Your task to perform on an android device: toggle notifications settings in the gmail app Image 0: 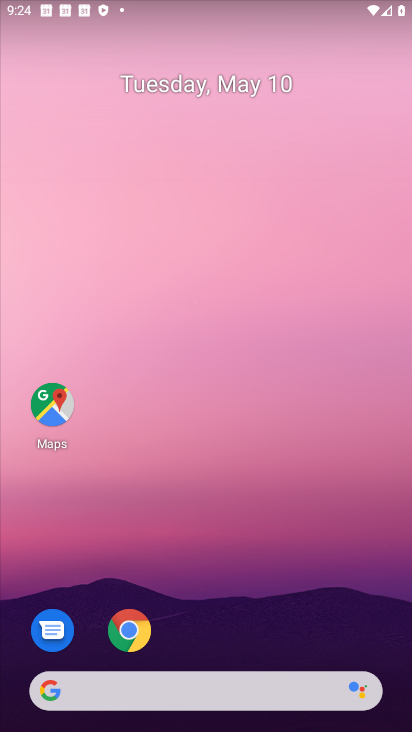
Step 0: drag from (188, 719) to (145, 13)
Your task to perform on an android device: toggle notifications settings in the gmail app Image 1: 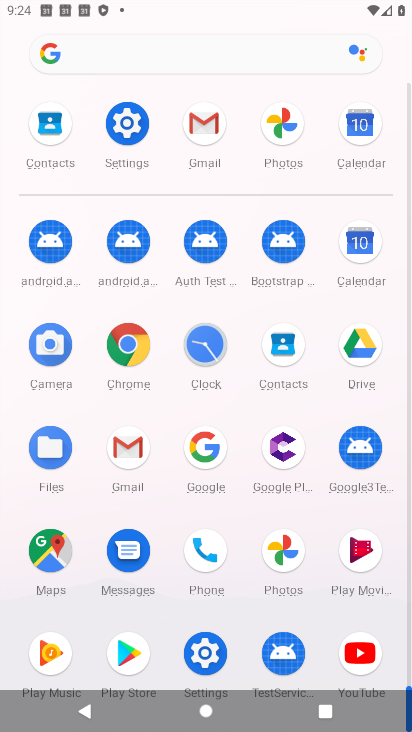
Step 1: click (200, 134)
Your task to perform on an android device: toggle notifications settings in the gmail app Image 2: 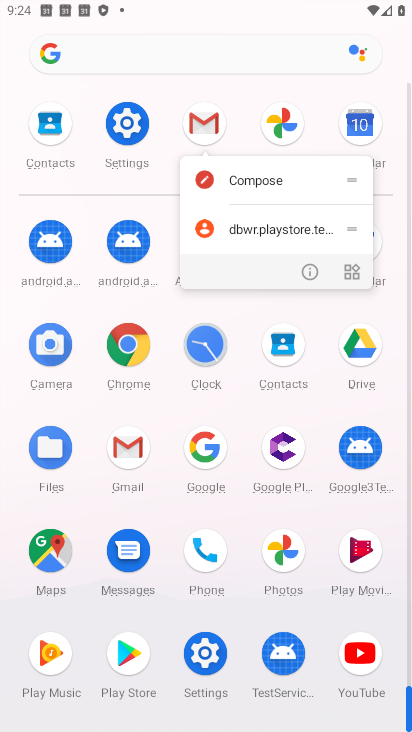
Step 2: click (309, 271)
Your task to perform on an android device: toggle notifications settings in the gmail app Image 3: 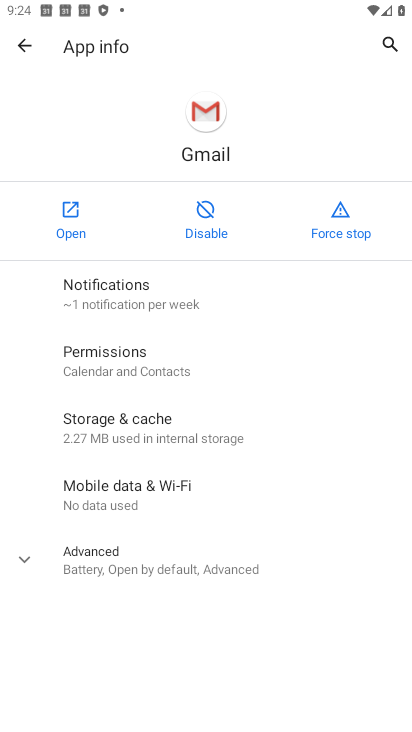
Step 3: click (218, 291)
Your task to perform on an android device: toggle notifications settings in the gmail app Image 4: 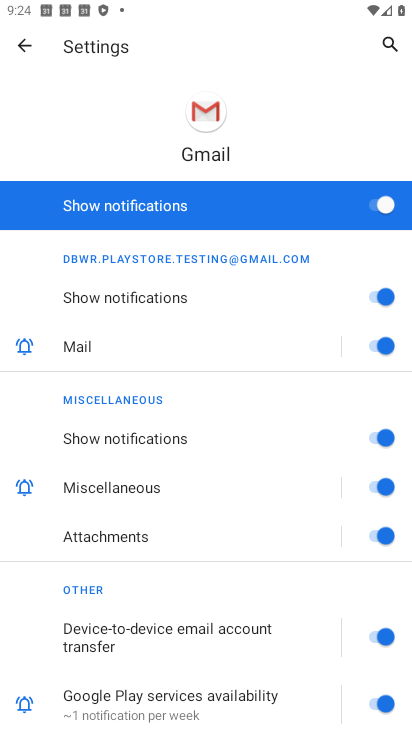
Step 4: click (383, 200)
Your task to perform on an android device: toggle notifications settings in the gmail app Image 5: 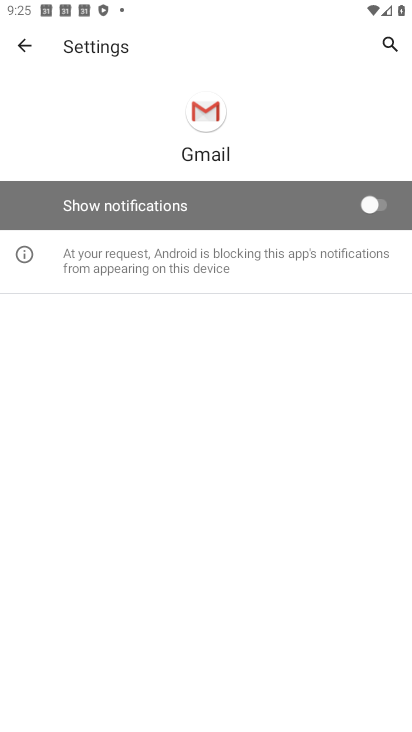
Step 5: task complete